Your task to perform on an android device: turn on sleep mode Image 0: 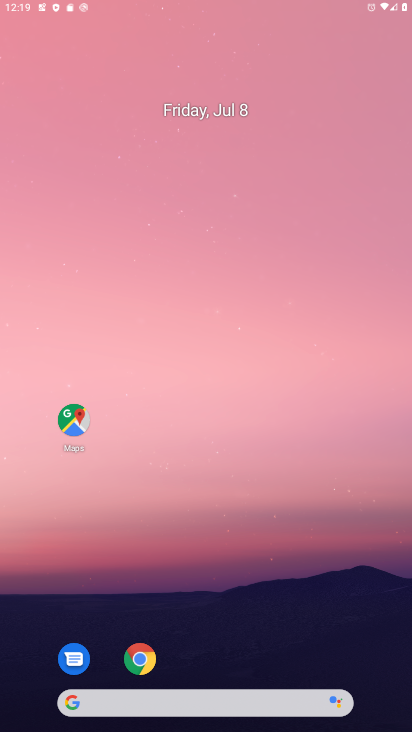
Step 0: drag from (210, 307) to (260, 259)
Your task to perform on an android device: turn on sleep mode Image 1: 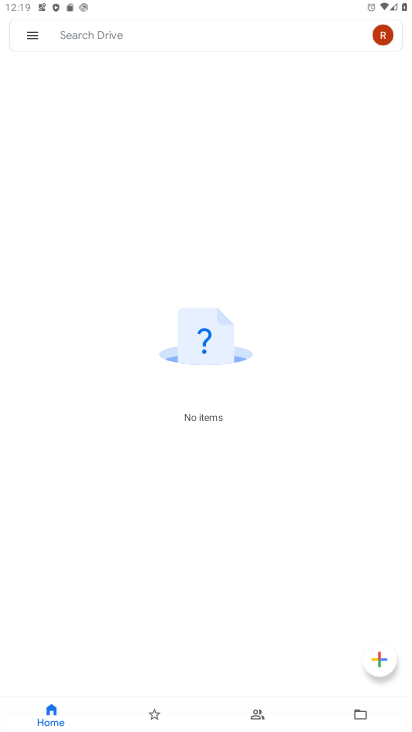
Step 1: press home button
Your task to perform on an android device: turn on sleep mode Image 2: 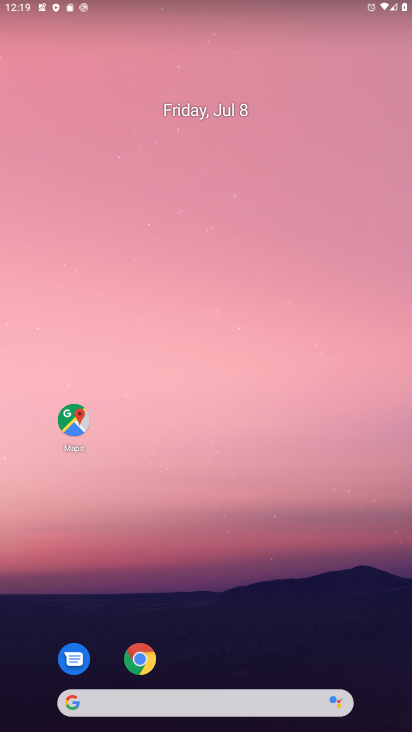
Step 2: drag from (233, 619) to (216, 156)
Your task to perform on an android device: turn on sleep mode Image 3: 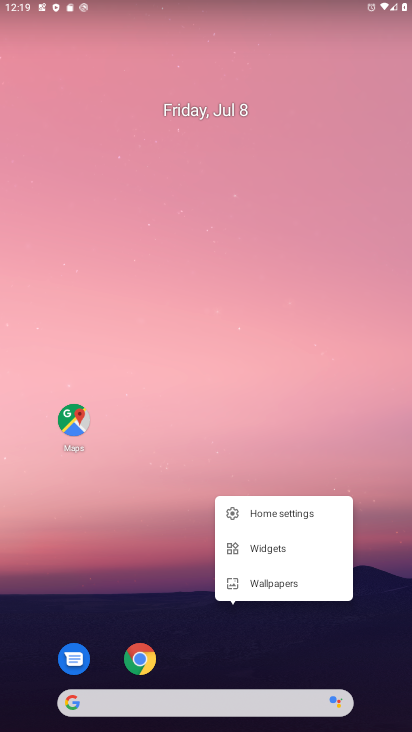
Step 3: click (124, 394)
Your task to perform on an android device: turn on sleep mode Image 4: 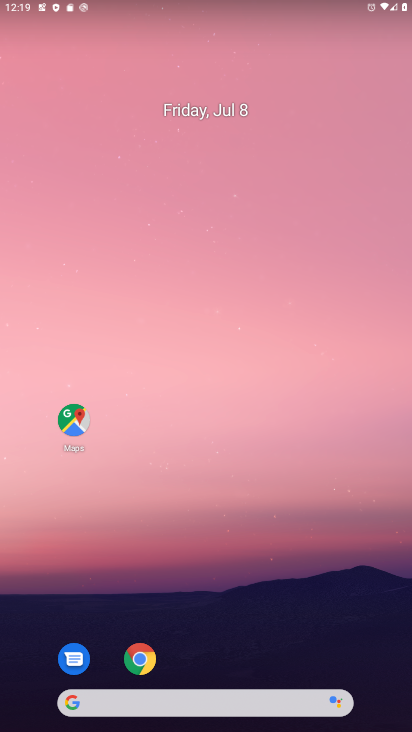
Step 4: drag from (209, 528) to (196, 242)
Your task to perform on an android device: turn on sleep mode Image 5: 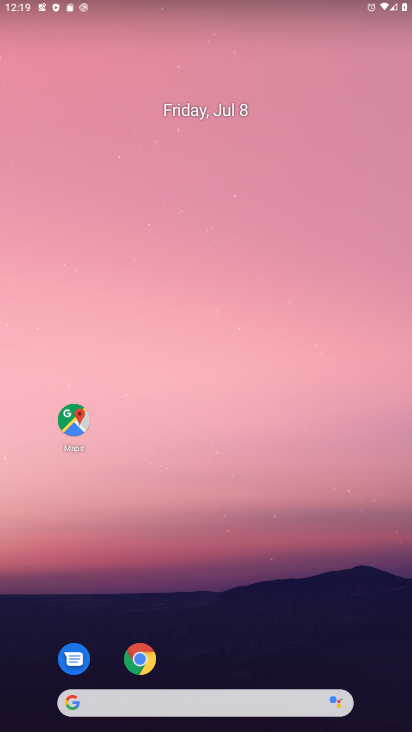
Step 5: drag from (239, 611) to (182, 292)
Your task to perform on an android device: turn on sleep mode Image 6: 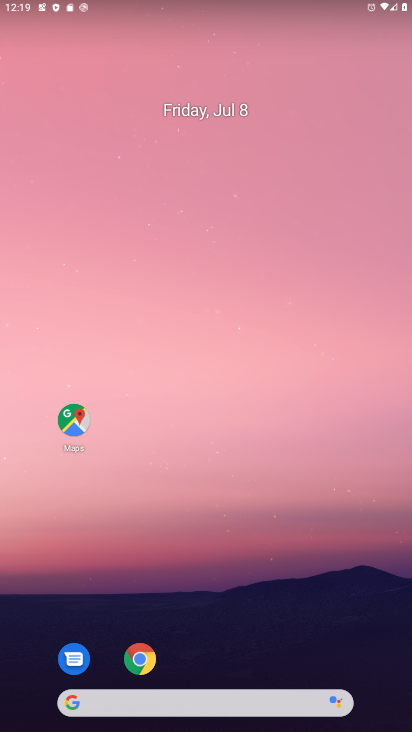
Step 6: drag from (208, 635) to (181, 214)
Your task to perform on an android device: turn on sleep mode Image 7: 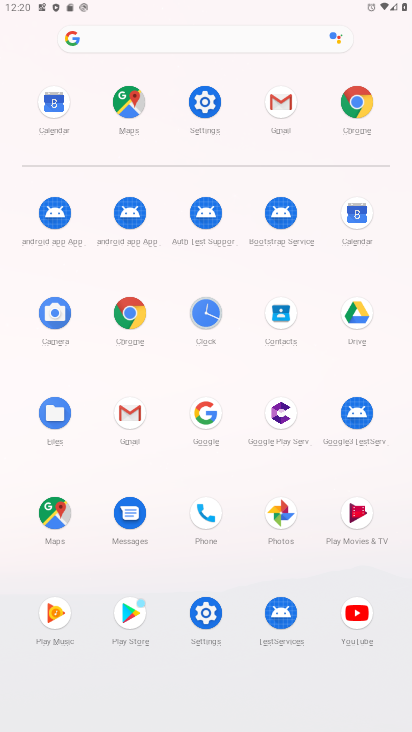
Step 7: click (204, 102)
Your task to perform on an android device: turn on sleep mode Image 8: 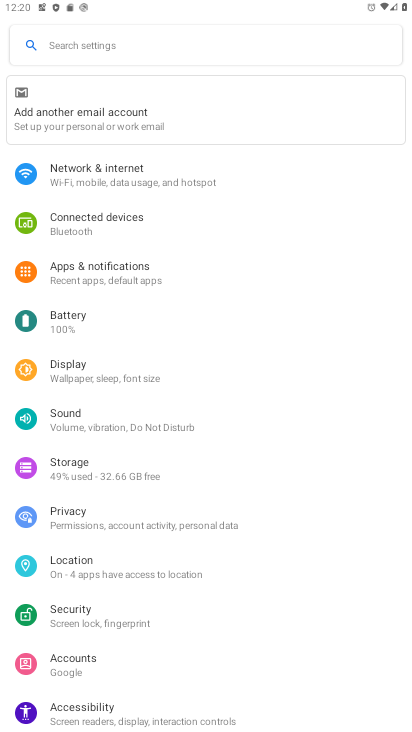
Step 8: click (69, 371)
Your task to perform on an android device: turn on sleep mode Image 9: 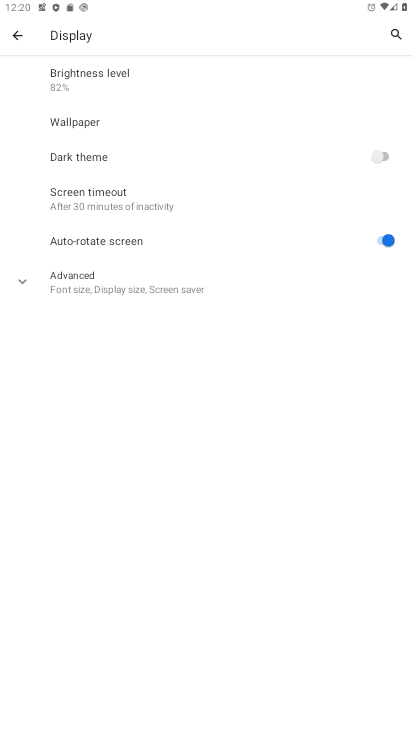
Step 9: task complete